Your task to perform on an android device: turn off priority inbox in the gmail app Image 0: 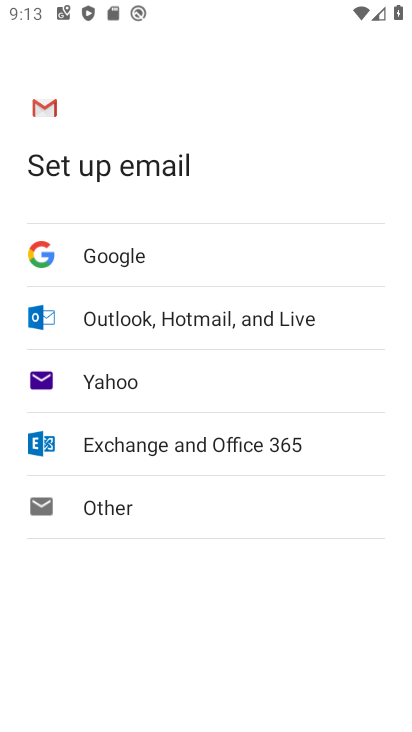
Step 0: press home button
Your task to perform on an android device: turn off priority inbox in the gmail app Image 1: 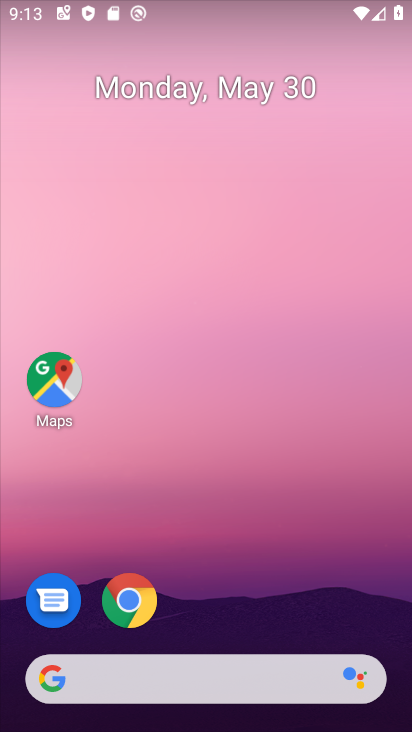
Step 1: drag from (296, 638) to (286, 87)
Your task to perform on an android device: turn off priority inbox in the gmail app Image 2: 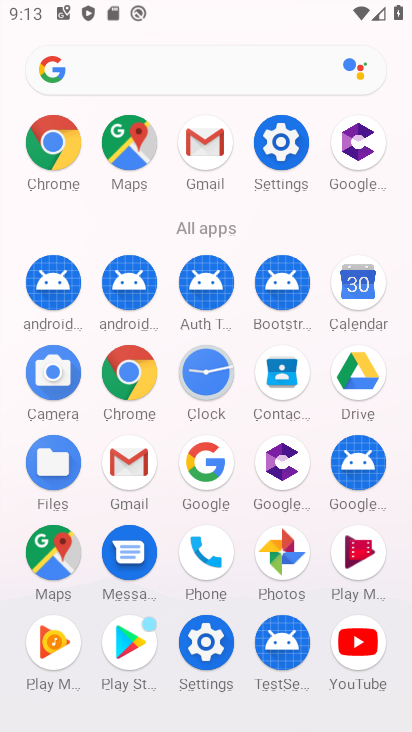
Step 2: click (212, 156)
Your task to perform on an android device: turn off priority inbox in the gmail app Image 3: 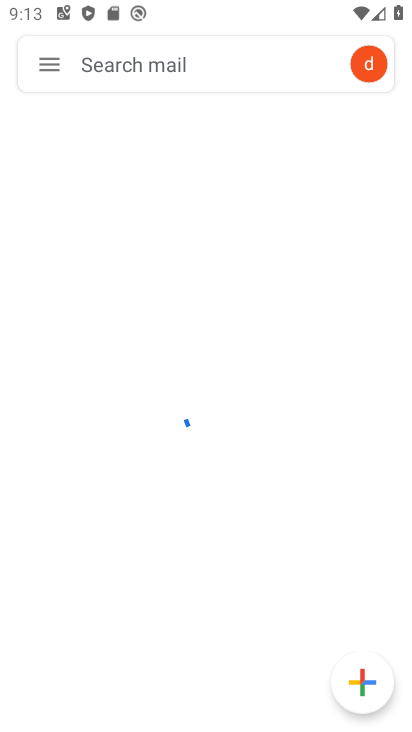
Step 3: click (49, 63)
Your task to perform on an android device: turn off priority inbox in the gmail app Image 4: 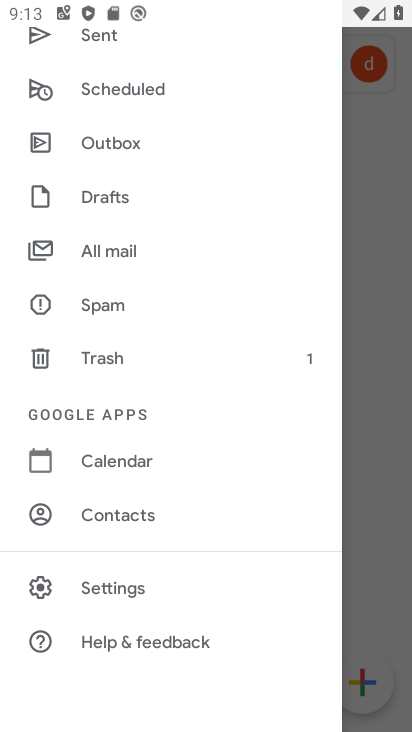
Step 4: click (113, 592)
Your task to perform on an android device: turn off priority inbox in the gmail app Image 5: 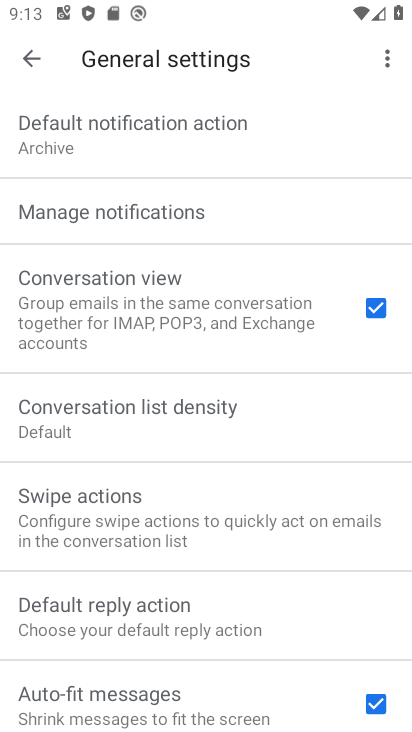
Step 5: click (24, 61)
Your task to perform on an android device: turn off priority inbox in the gmail app Image 6: 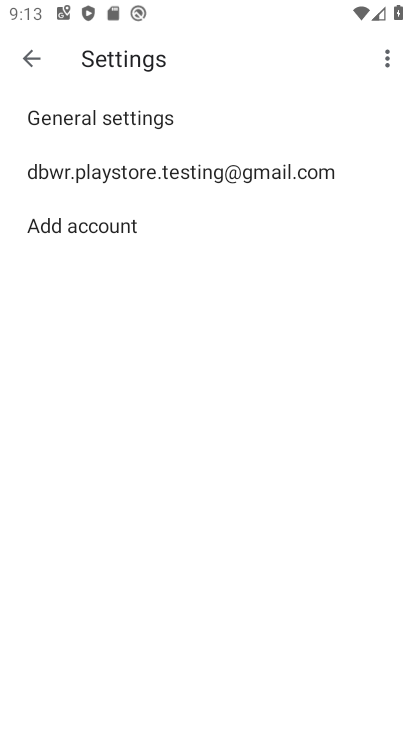
Step 6: click (95, 178)
Your task to perform on an android device: turn off priority inbox in the gmail app Image 7: 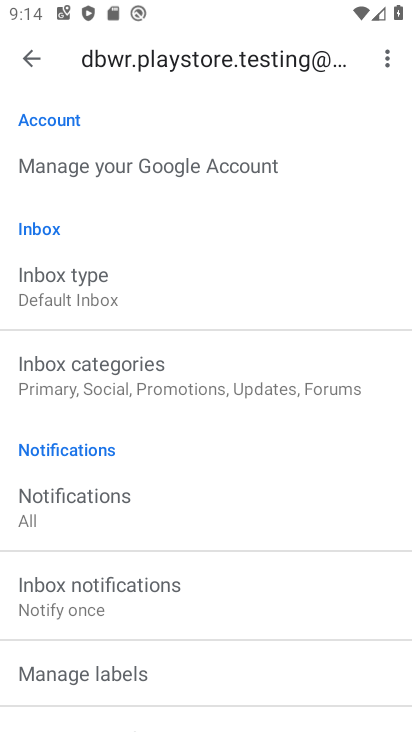
Step 7: click (79, 288)
Your task to perform on an android device: turn off priority inbox in the gmail app Image 8: 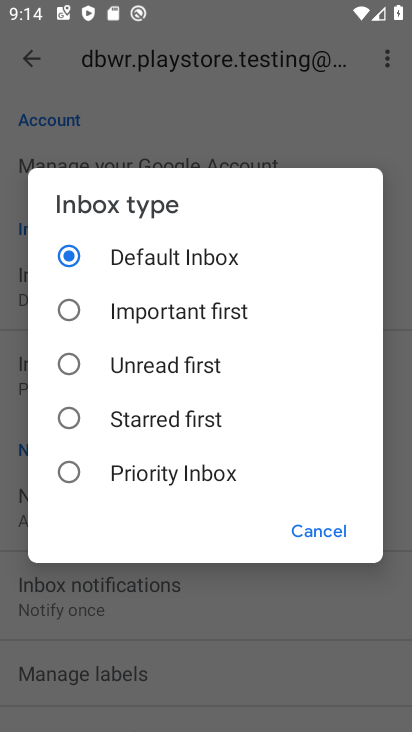
Step 8: task complete